Your task to perform on an android device: check battery use Image 0: 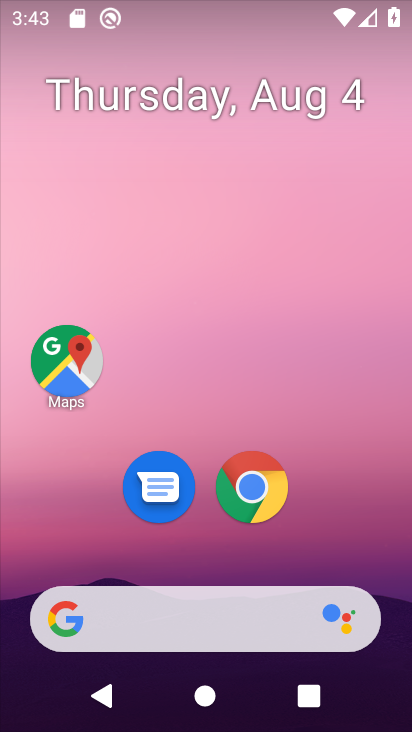
Step 0: drag from (164, 551) to (185, 20)
Your task to perform on an android device: check battery use Image 1: 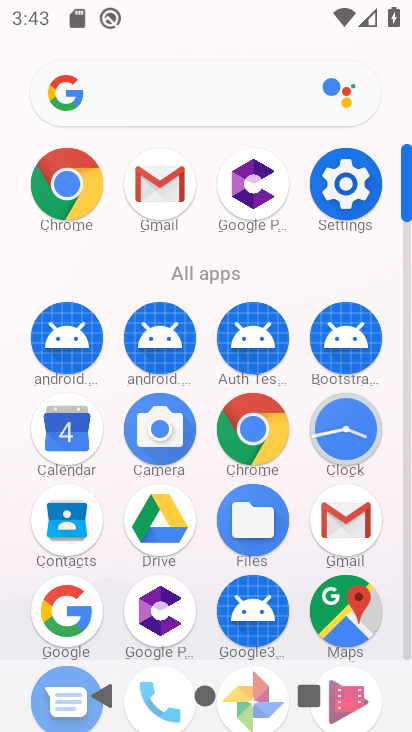
Step 1: click (351, 178)
Your task to perform on an android device: check battery use Image 2: 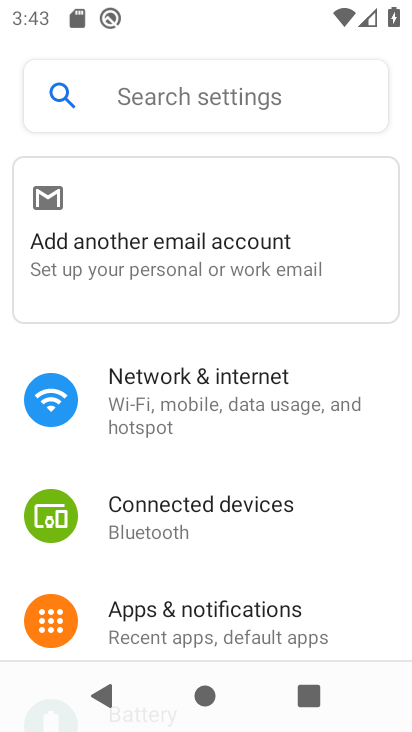
Step 2: drag from (174, 608) to (270, 84)
Your task to perform on an android device: check battery use Image 3: 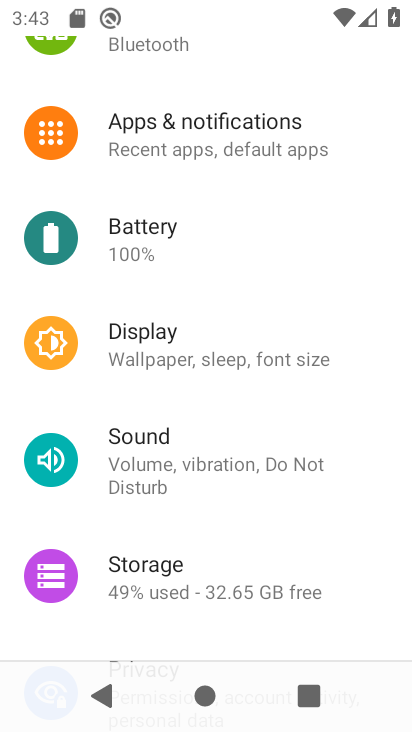
Step 3: click (126, 243)
Your task to perform on an android device: check battery use Image 4: 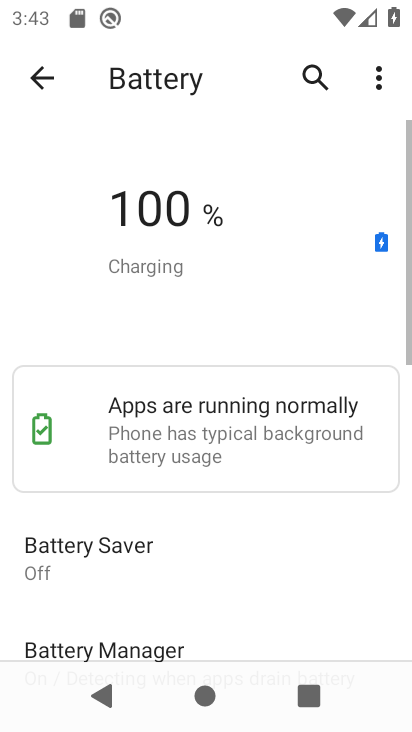
Step 4: click (372, 86)
Your task to perform on an android device: check battery use Image 5: 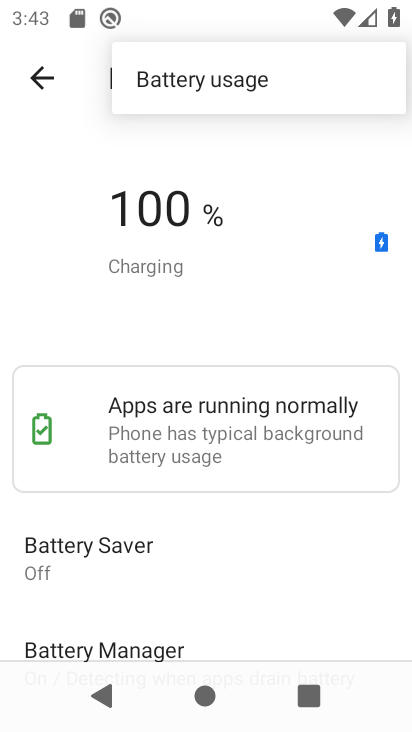
Step 5: click (296, 89)
Your task to perform on an android device: check battery use Image 6: 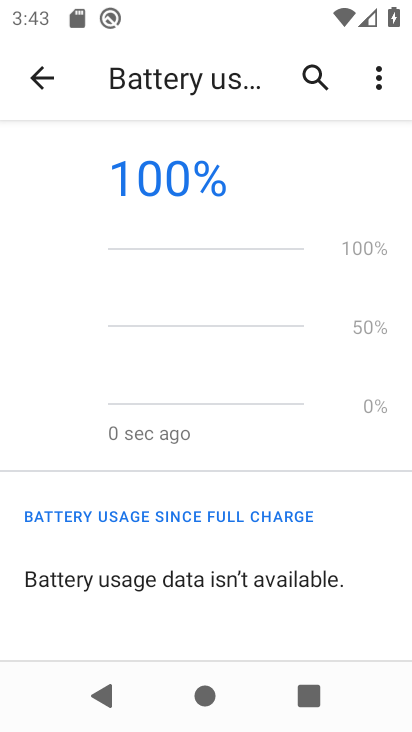
Step 6: task complete